Your task to perform on an android device: set default search engine in the chrome app Image 0: 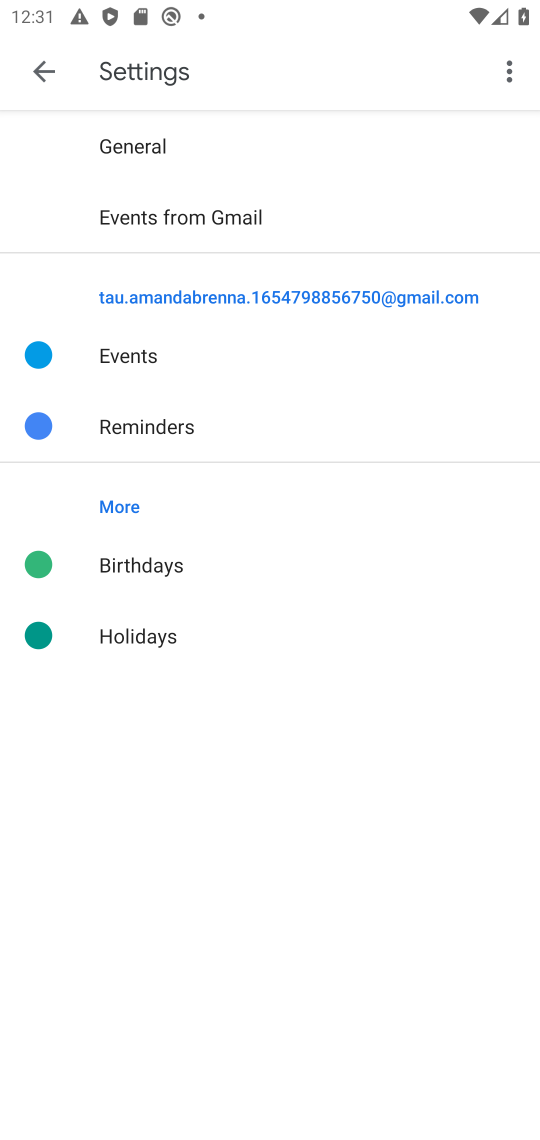
Step 0: press home button
Your task to perform on an android device: set default search engine in the chrome app Image 1: 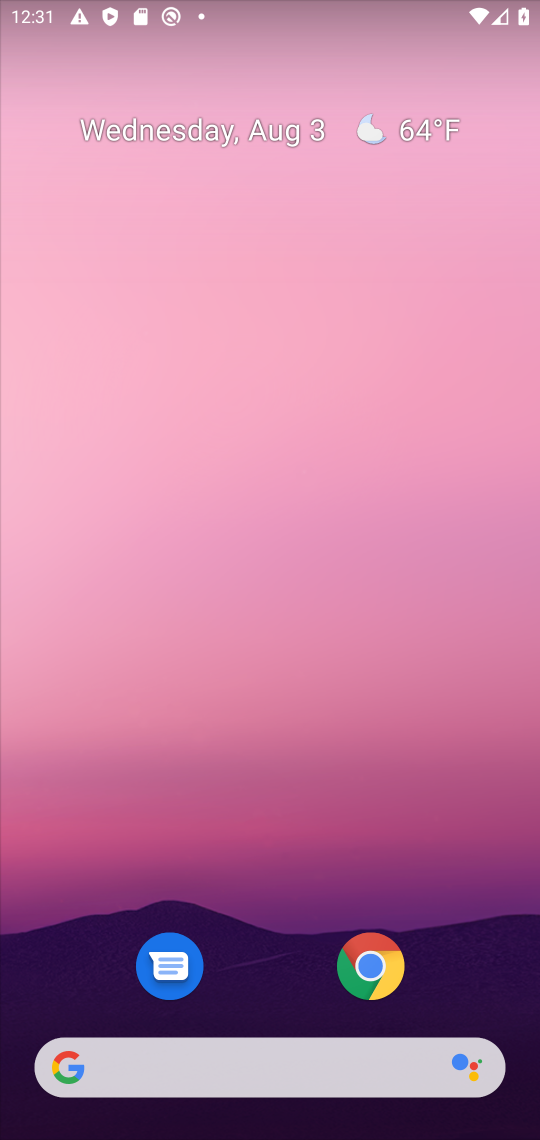
Step 1: click (314, 949)
Your task to perform on an android device: set default search engine in the chrome app Image 2: 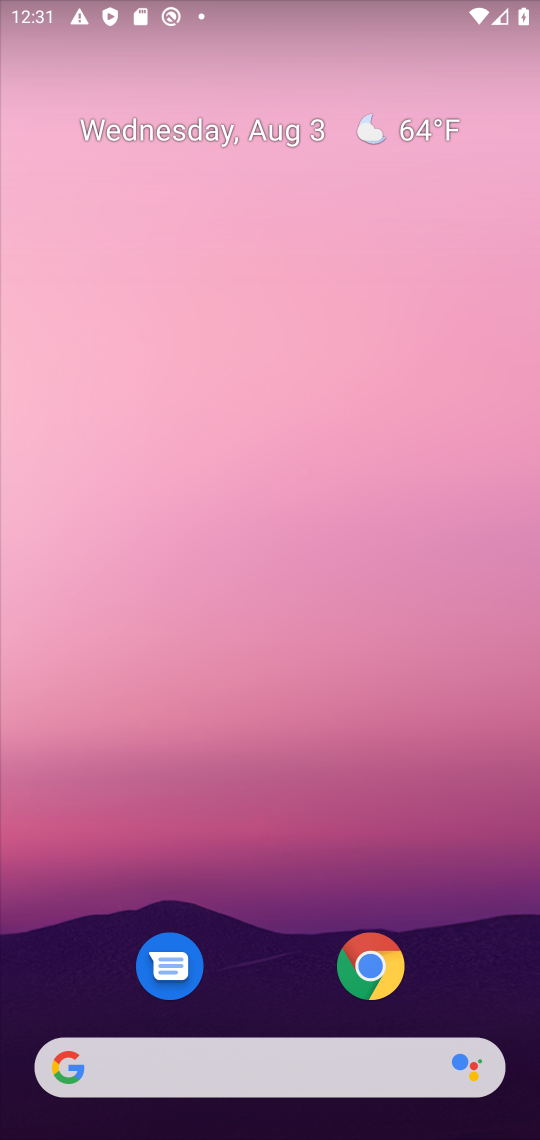
Step 2: click (333, 967)
Your task to perform on an android device: set default search engine in the chrome app Image 3: 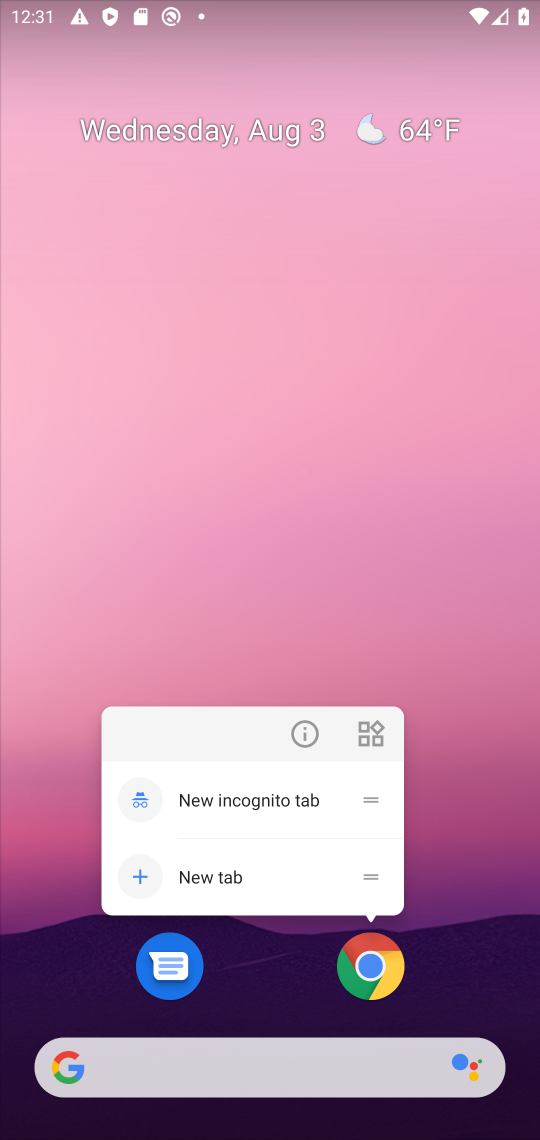
Step 3: click (378, 995)
Your task to perform on an android device: set default search engine in the chrome app Image 4: 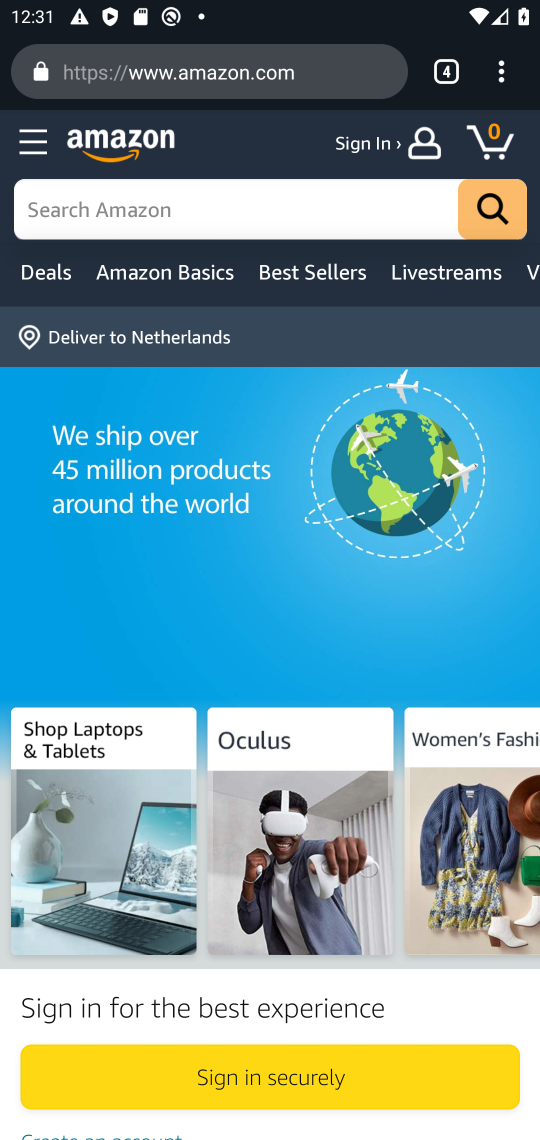
Step 4: click (502, 87)
Your task to perform on an android device: set default search engine in the chrome app Image 5: 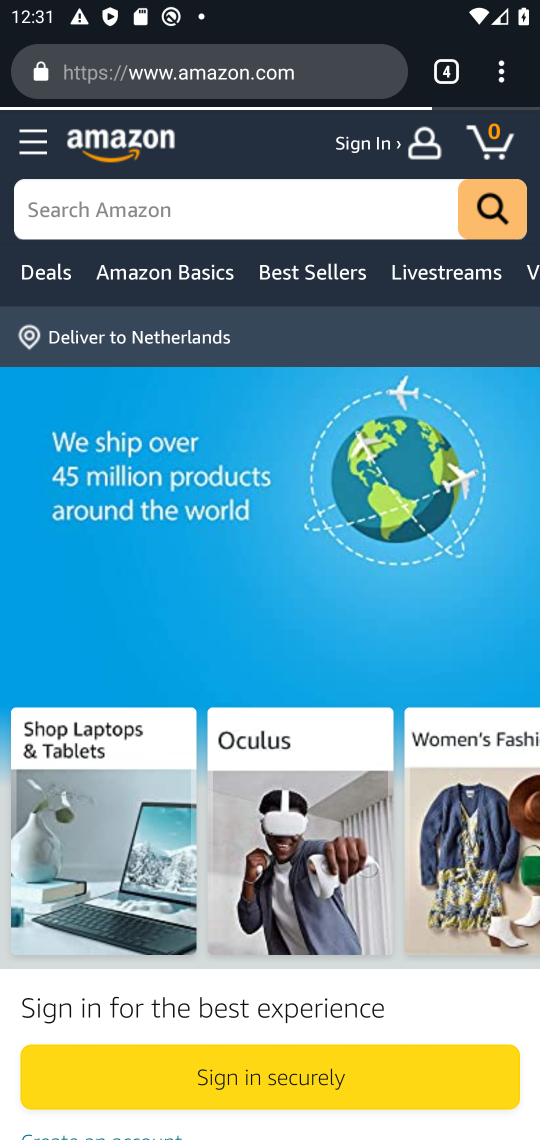
Step 5: drag from (502, 62) to (304, 847)
Your task to perform on an android device: set default search engine in the chrome app Image 6: 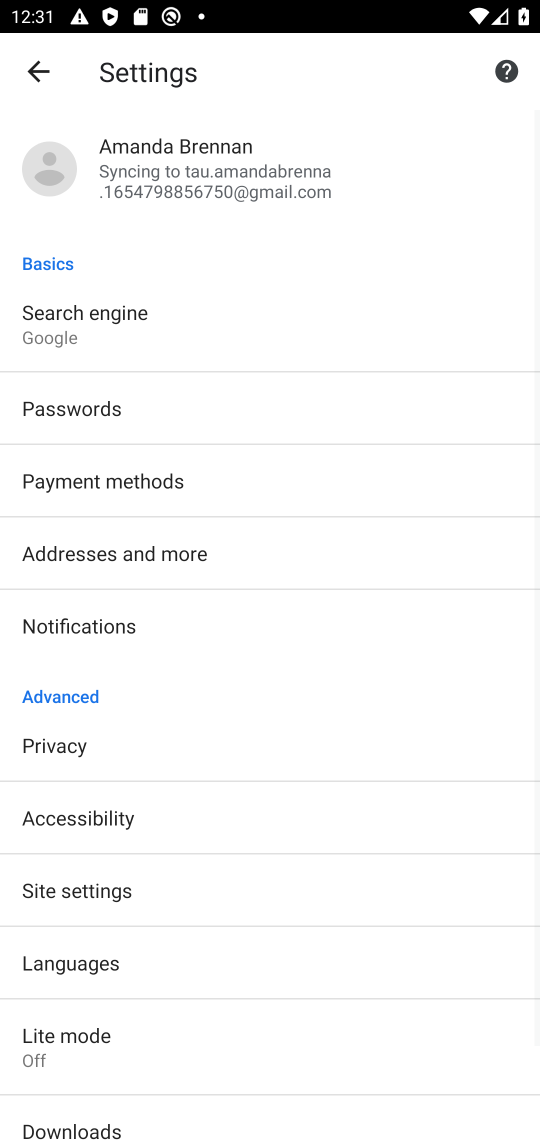
Step 6: click (67, 355)
Your task to perform on an android device: set default search engine in the chrome app Image 7: 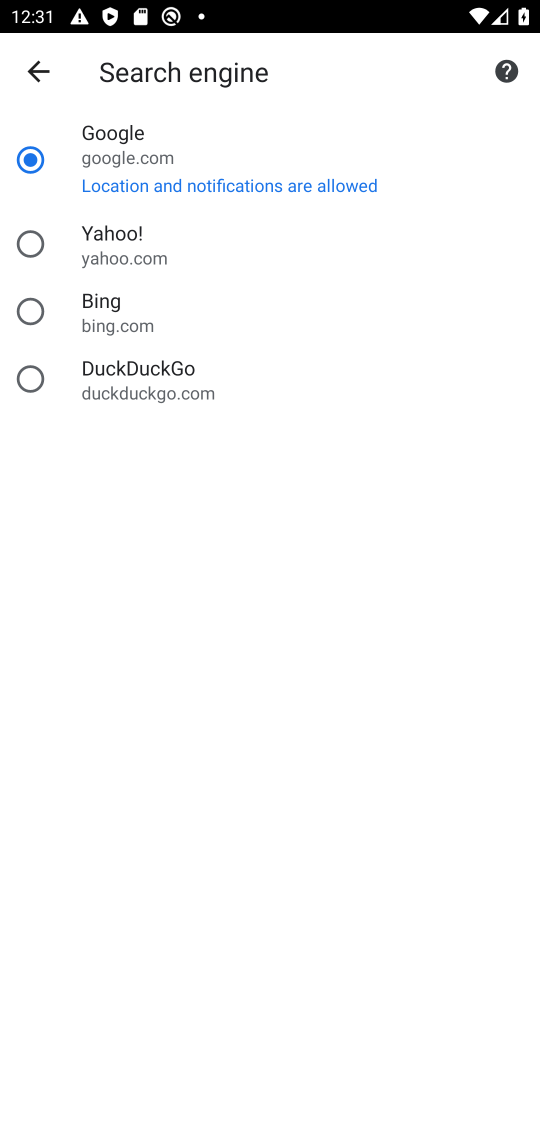
Step 7: task complete